Your task to perform on an android device: change the upload size in google photos Image 0: 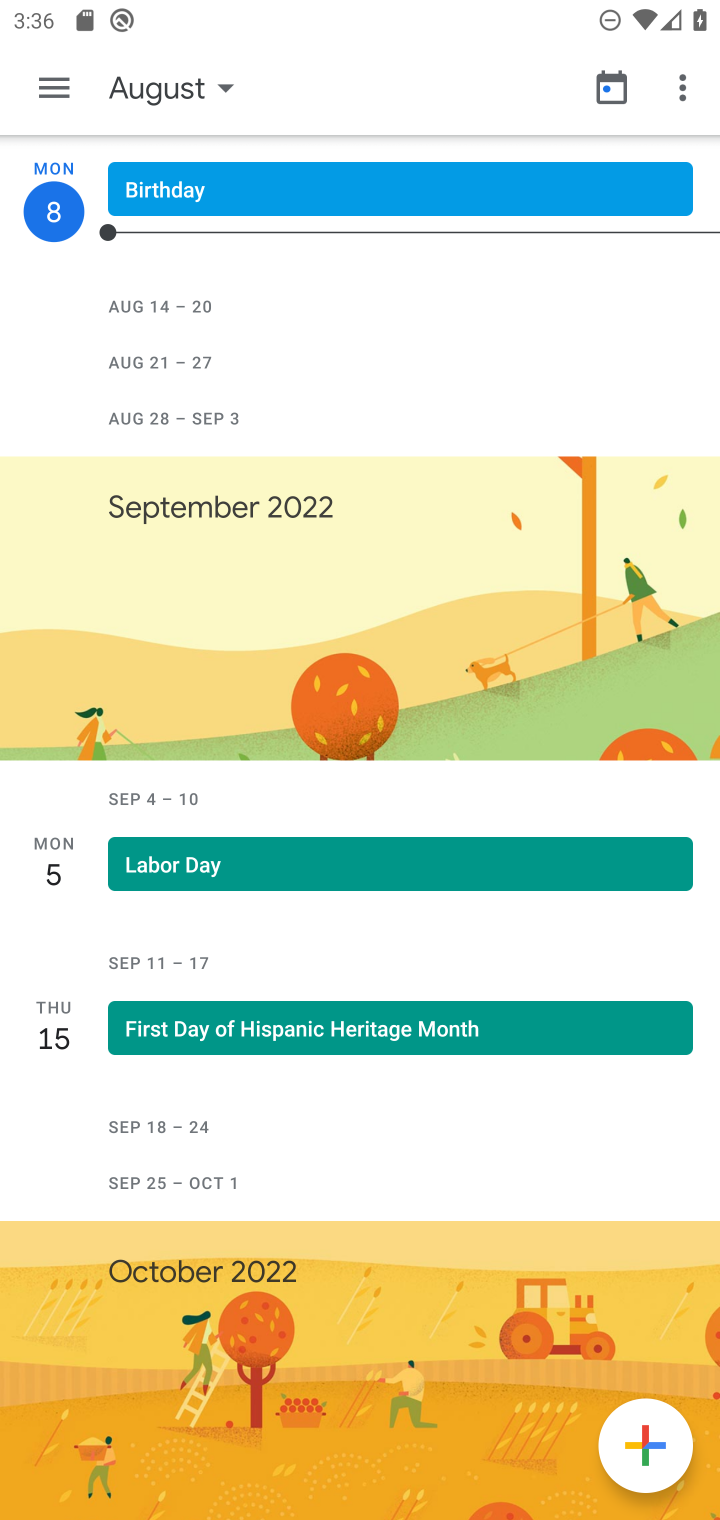
Step 0: press home button
Your task to perform on an android device: change the upload size in google photos Image 1: 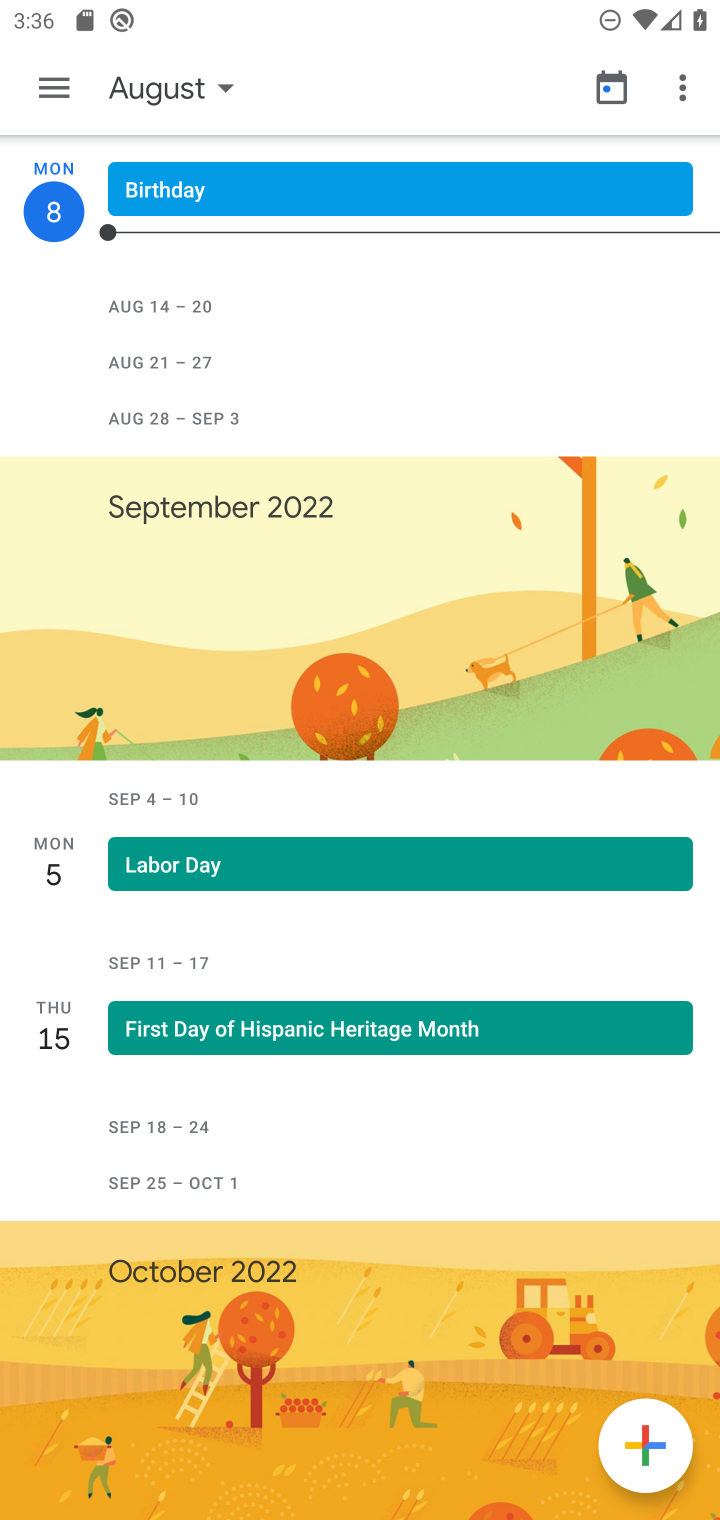
Step 1: press home button
Your task to perform on an android device: change the upload size in google photos Image 2: 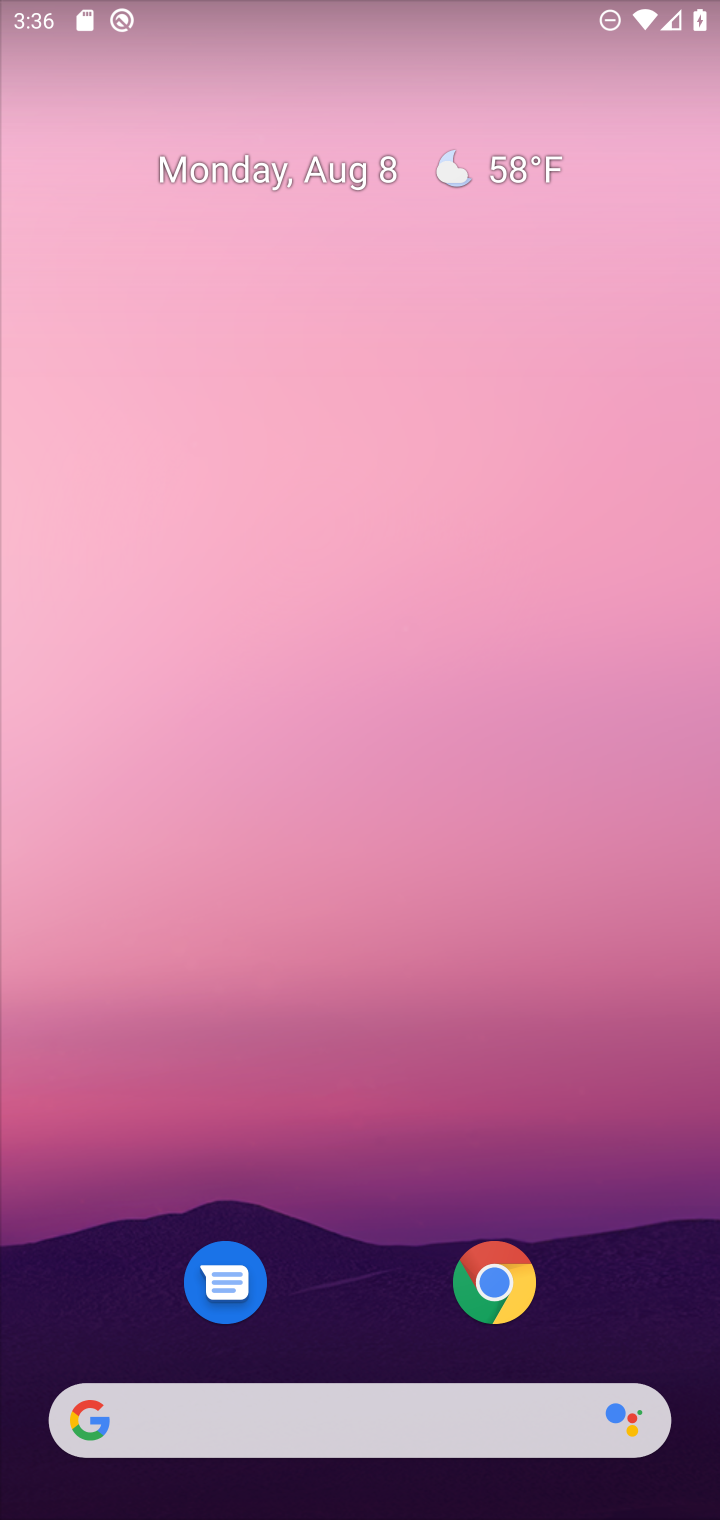
Step 2: drag from (367, 1108) to (570, 162)
Your task to perform on an android device: change the upload size in google photos Image 3: 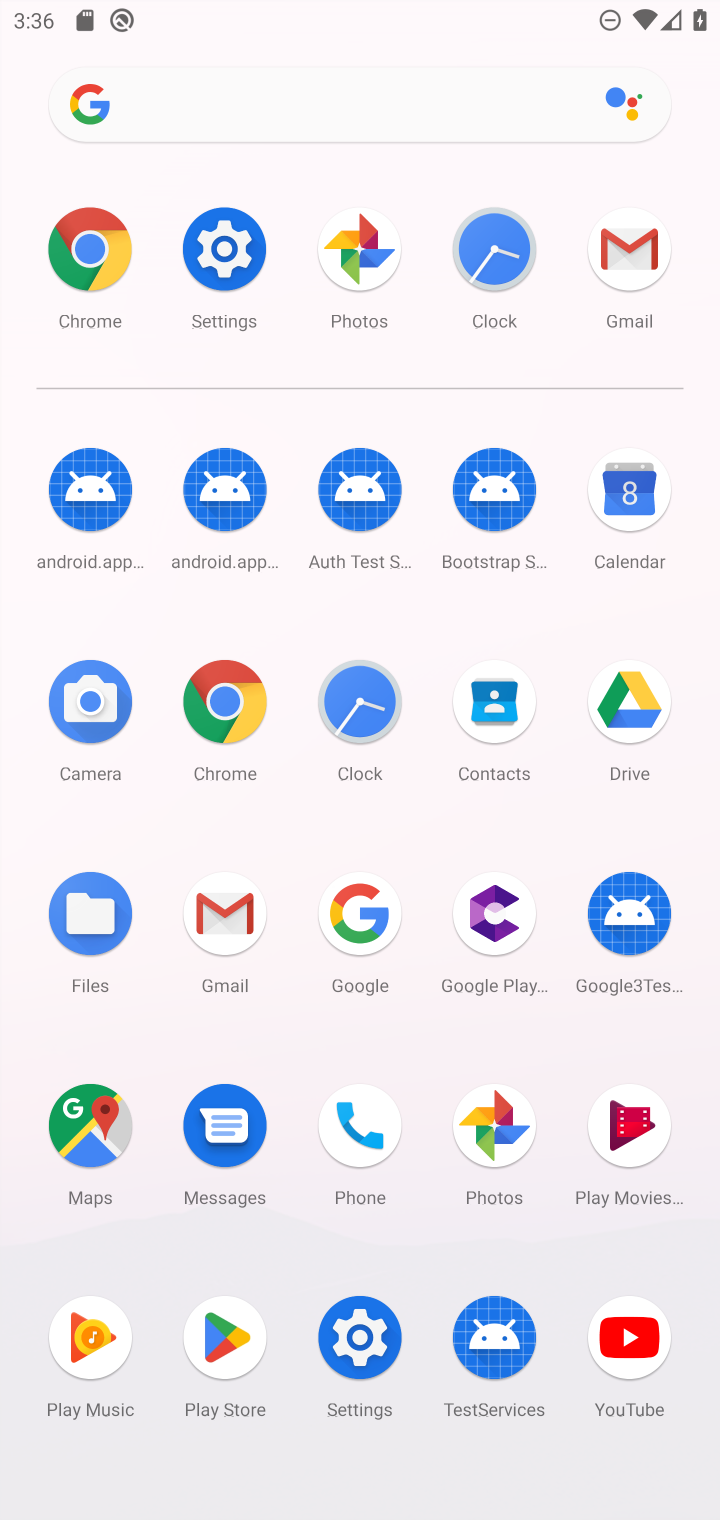
Step 3: click (488, 1109)
Your task to perform on an android device: change the upload size in google photos Image 4: 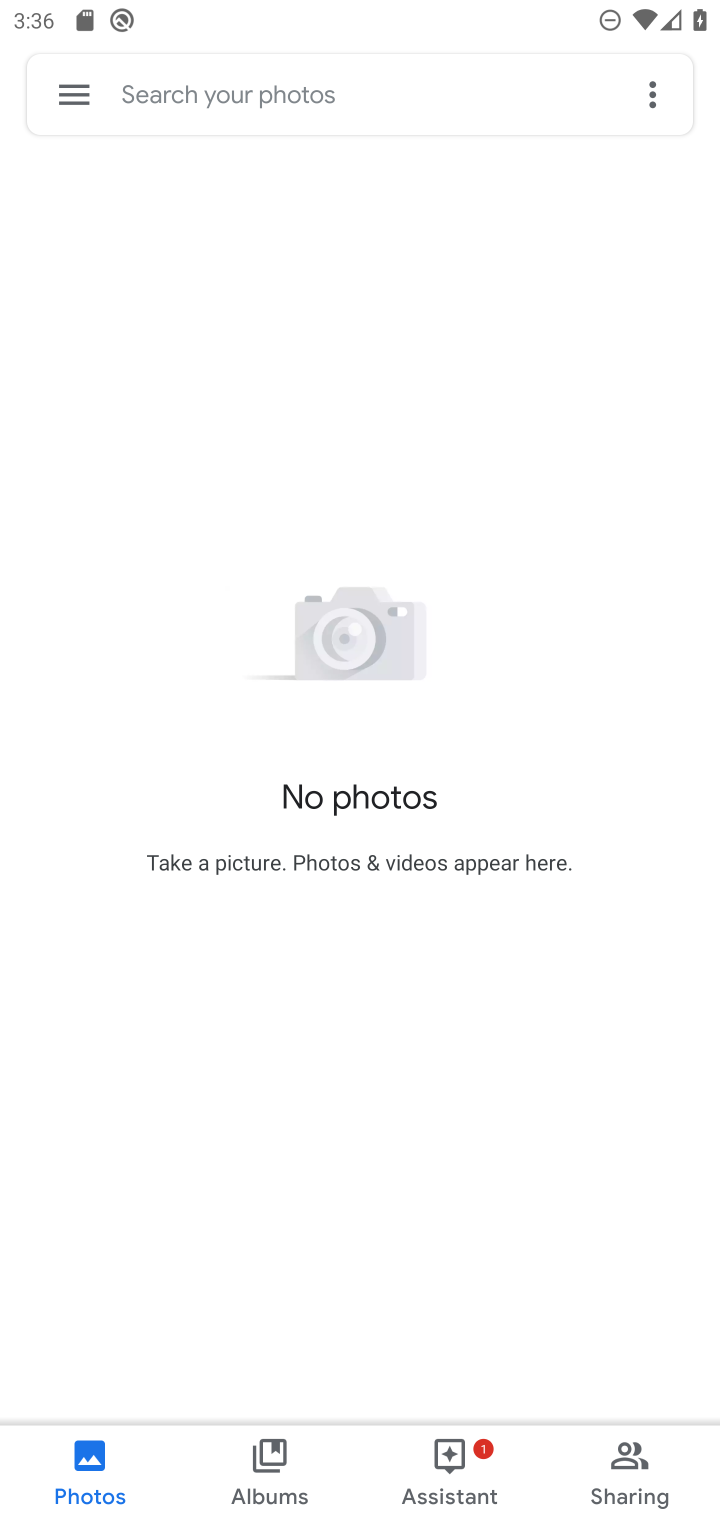
Step 4: click (78, 80)
Your task to perform on an android device: change the upload size in google photos Image 5: 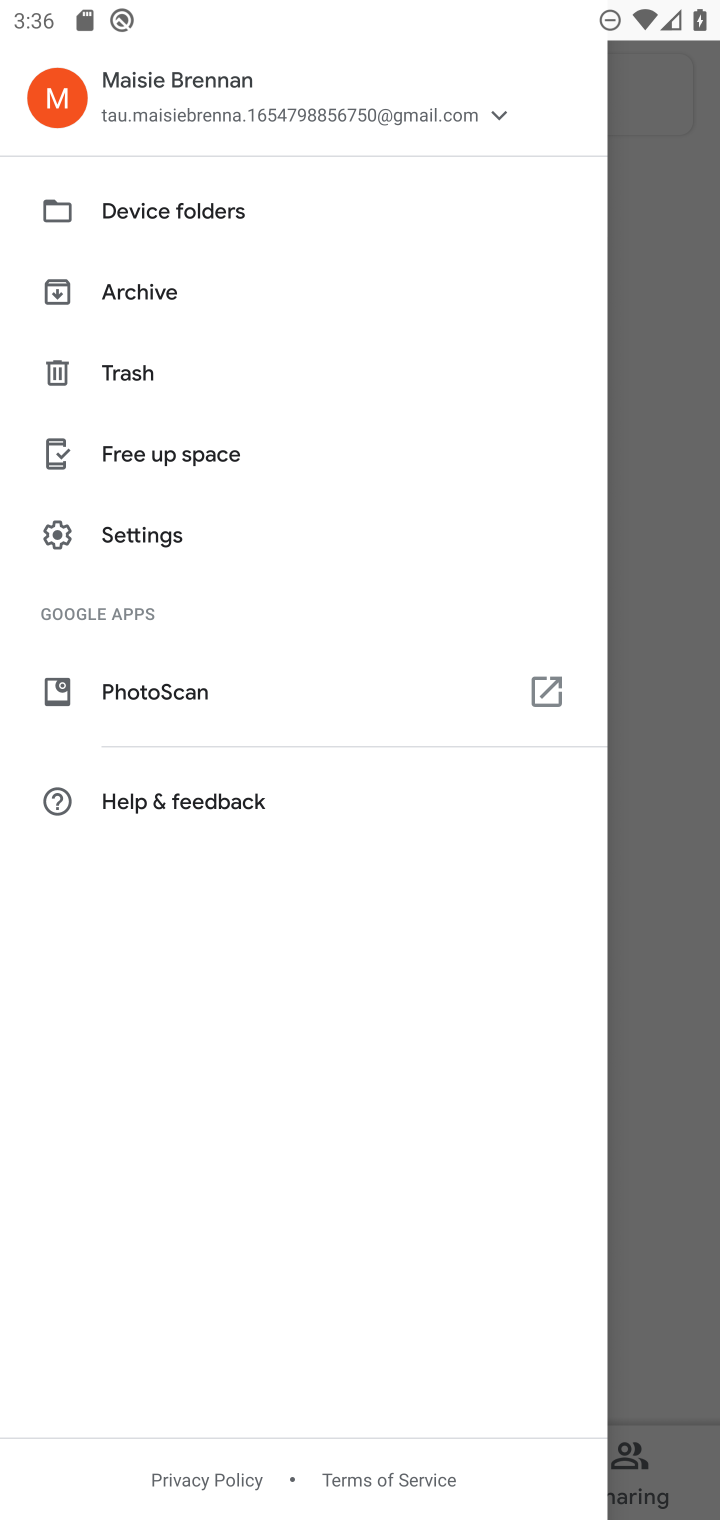
Step 5: click (140, 537)
Your task to perform on an android device: change the upload size in google photos Image 6: 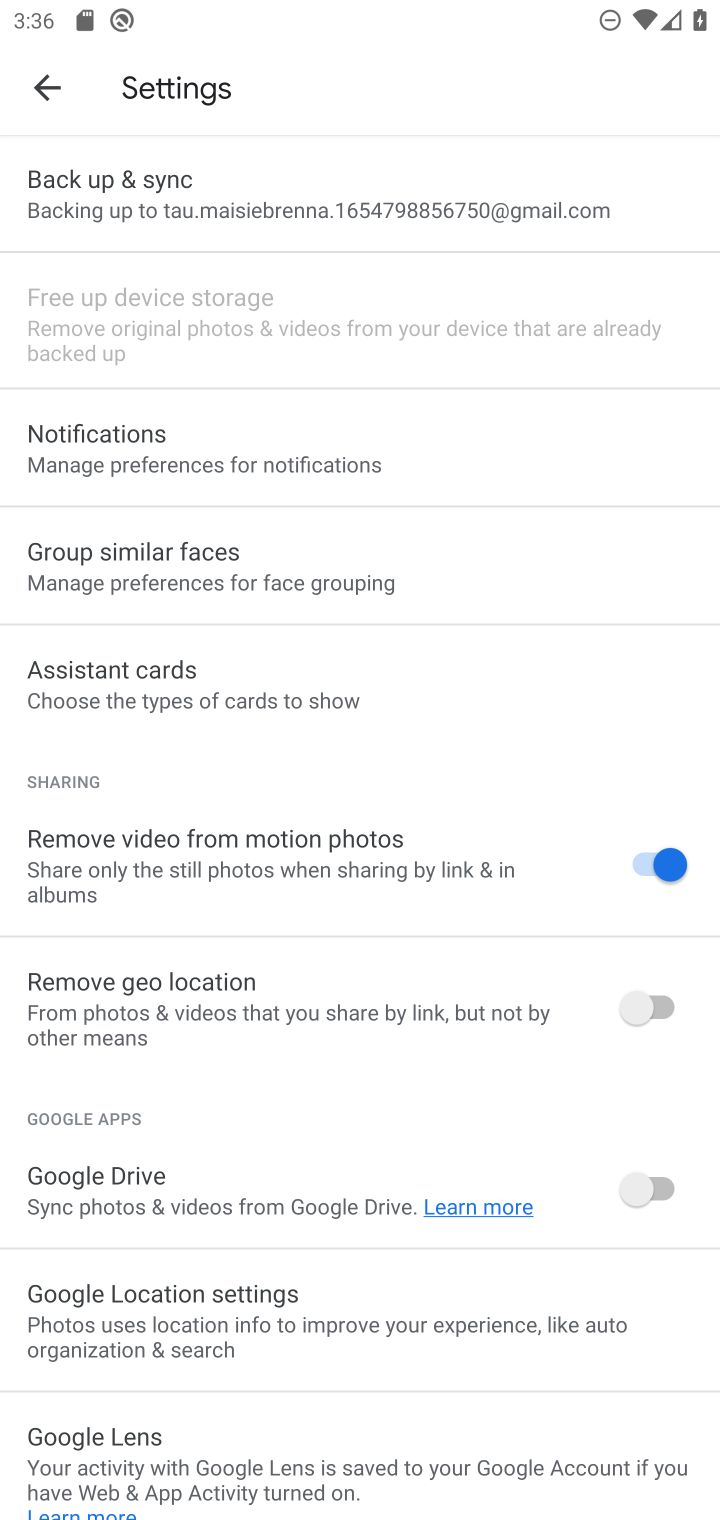
Step 6: click (300, 201)
Your task to perform on an android device: change the upload size in google photos Image 7: 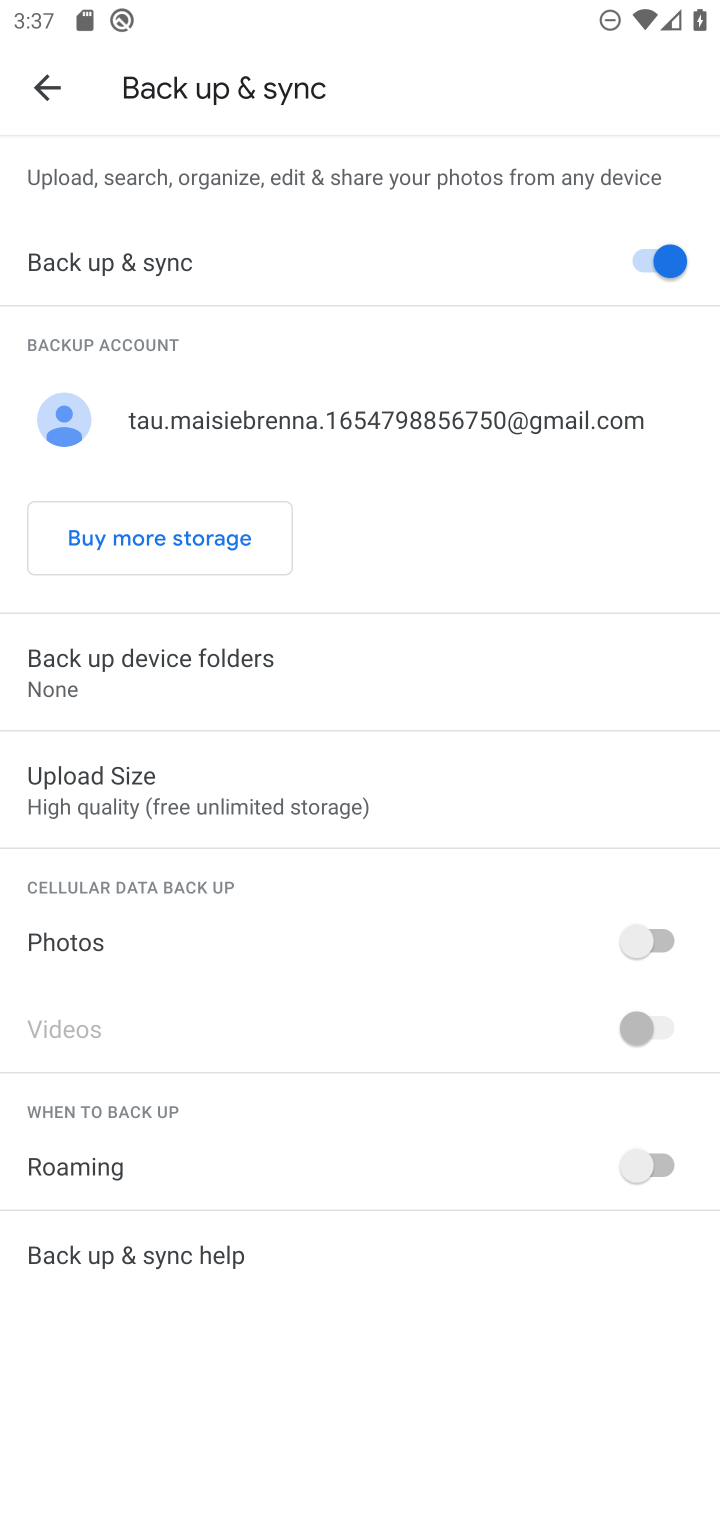
Step 7: click (193, 777)
Your task to perform on an android device: change the upload size in google photos Image 8: 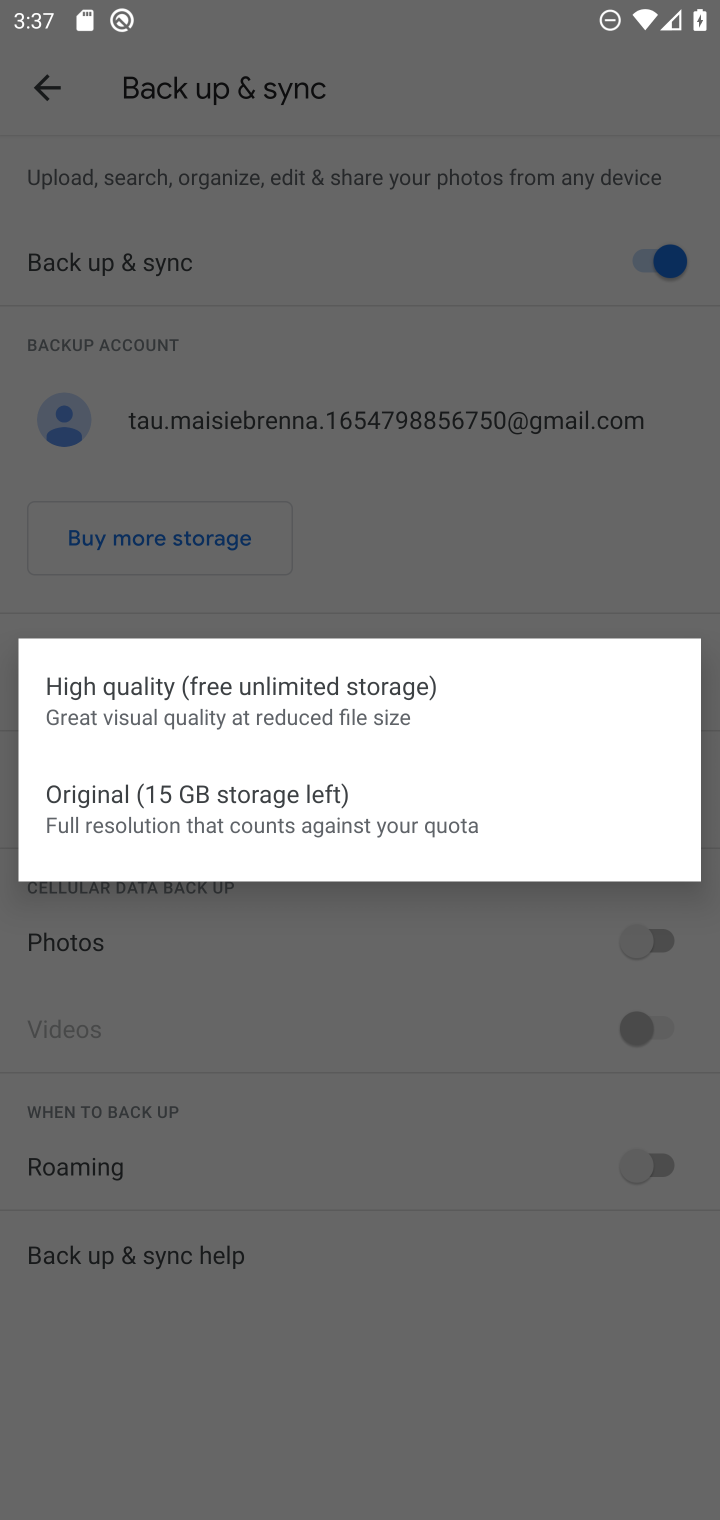
Step 8: click (262, 916)
Your task to perform on an android device: change the upload size in google photos Image 9: 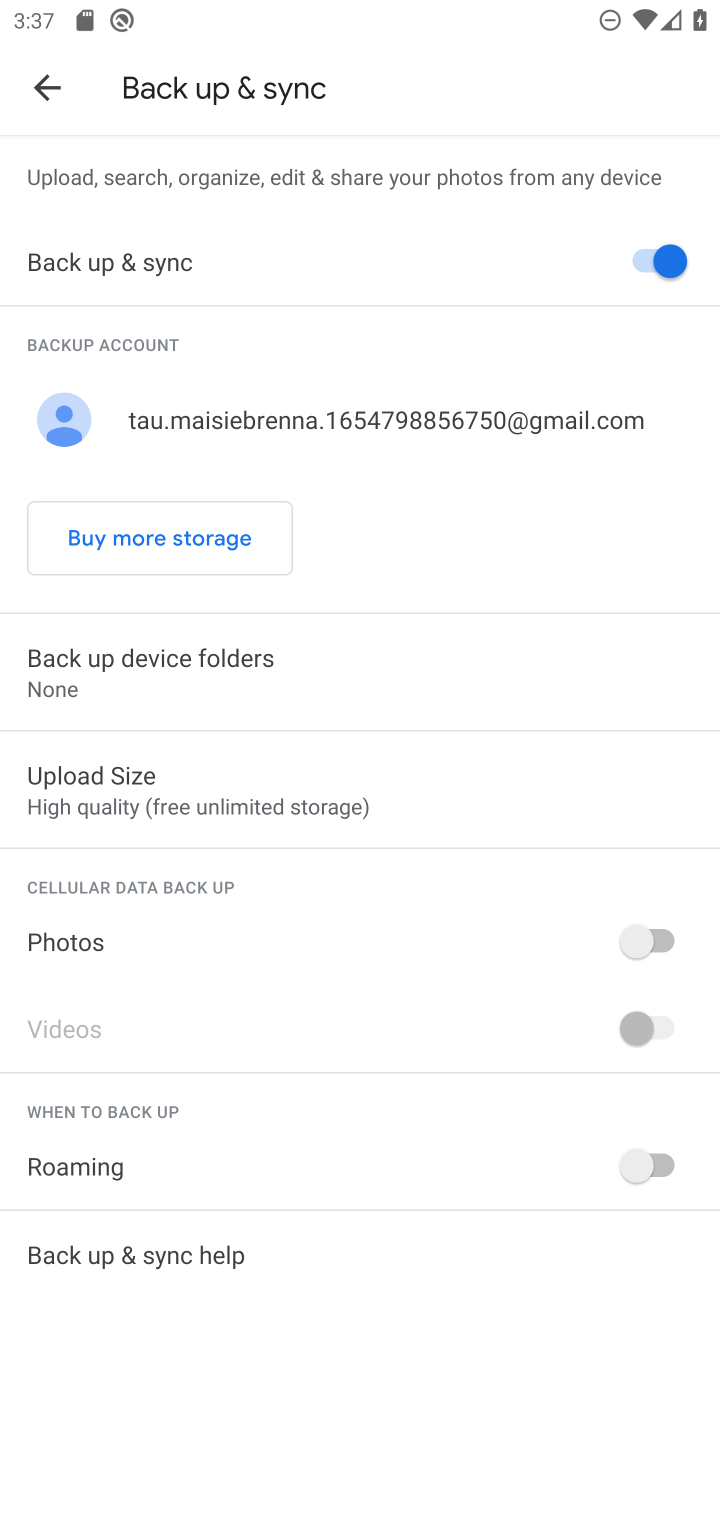
Step 9: click (191, 810)
Your task to perform on an android device: change the upload size in google photos Image 10: 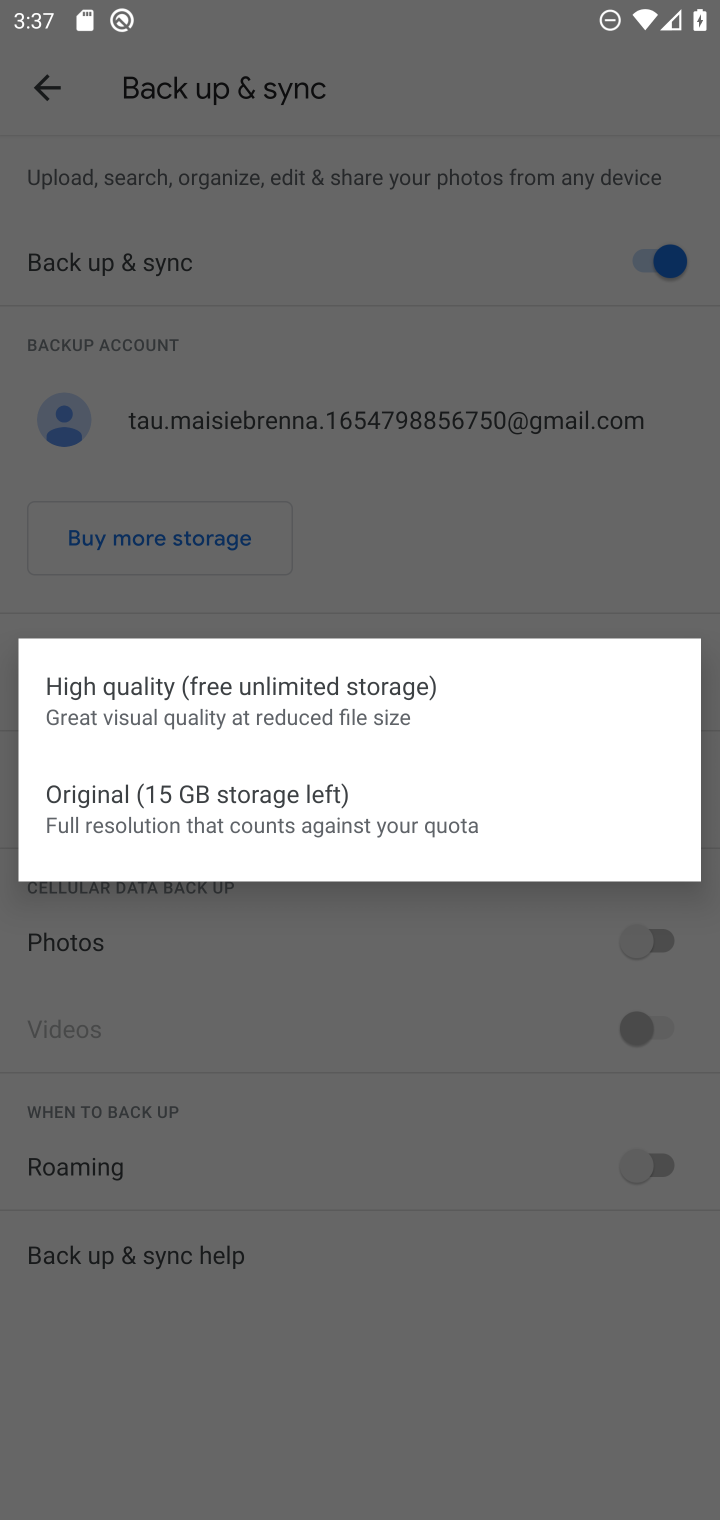
Step 10: click (191, 810)
Your task to perform on an android device: change the upload size in google photos Image 11: 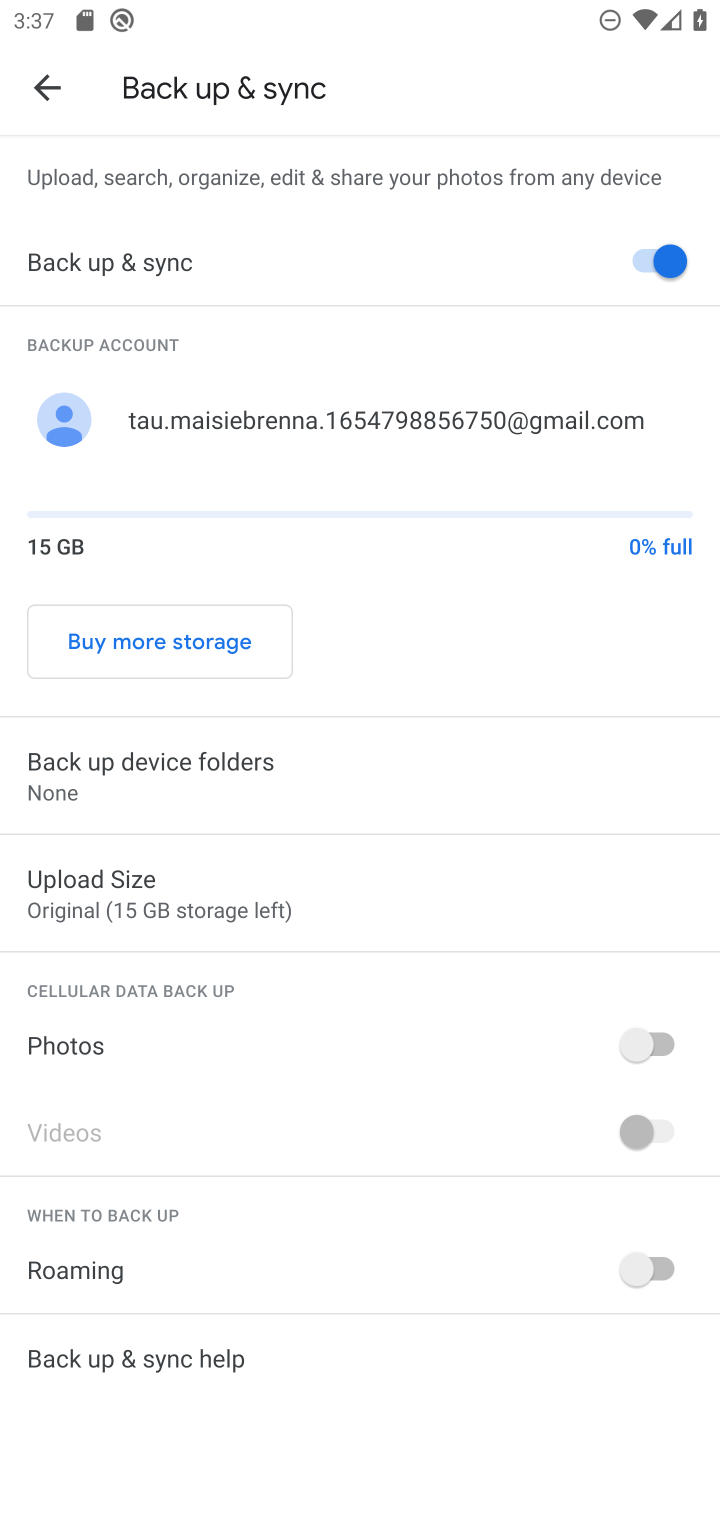
Step 11: task complete